Your task to perform on an android device: Show the shopping cart on newegg. Search for lenovo thinkpad on newegg, select the first entry, add it to the cart, then select checkout. Image 0: 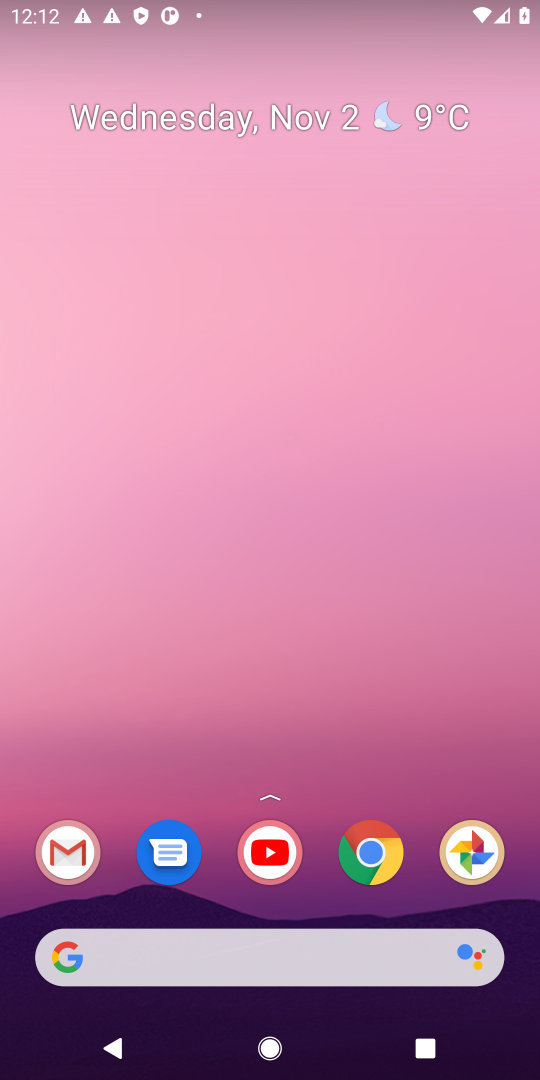
Step 0: drag from (249, 867) to (276, 129)
Your task to perform on an android device: Show the shopping cart on newegg. Search for lenovo thinkpad on newegg, select the first entry, add it to the cart, then select checkout. Image 1: 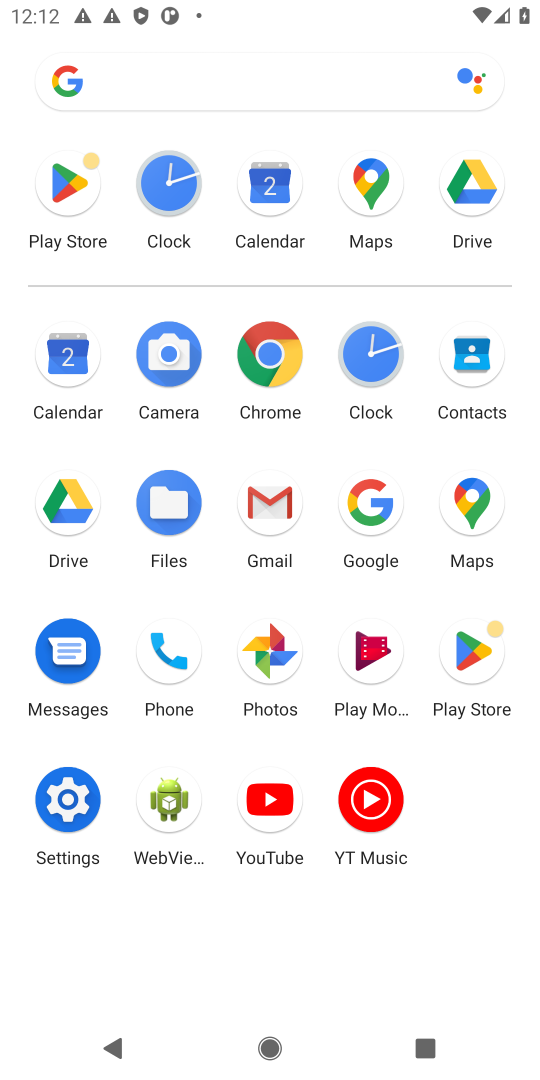
Step 1: click (369, 553)
Your task to perform on an android device: Show the shopping cart on newegg. Search for lenovo thinkpad on newegg, select the first entry, add it to the cart, then select checkout. Image 2: 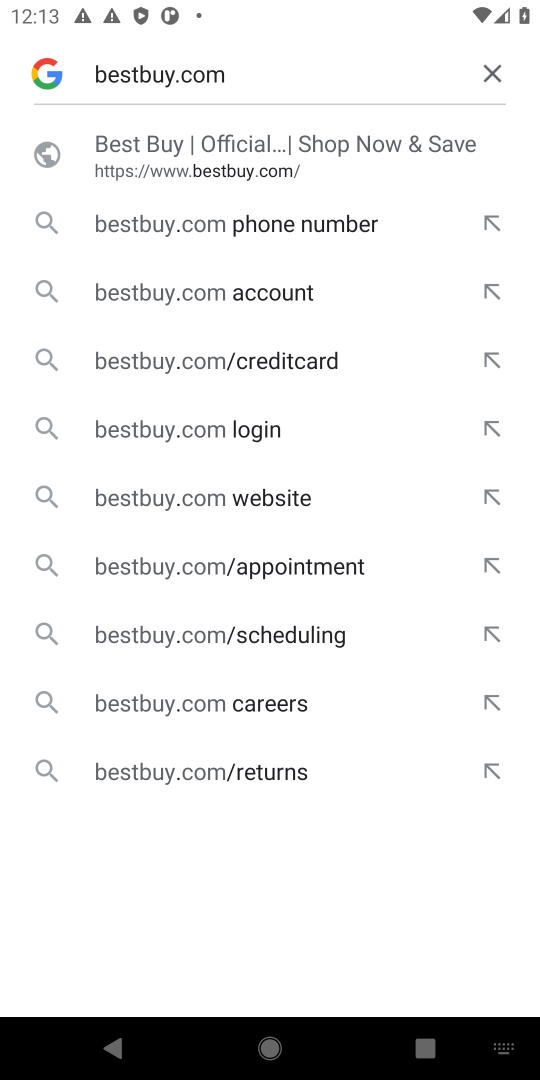
Step 2: click (498, 77)
Your task to perform on an android device: Show the shopping cart on newegg. Search for lenovo thinkpad on newegg, select the first entry, add it to the cart, then select checkout. Image 3: 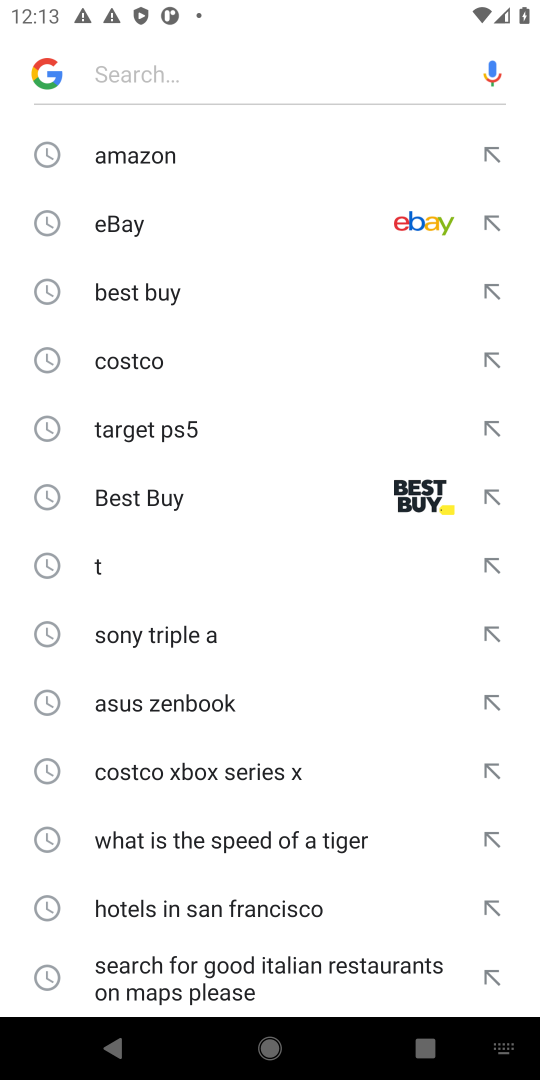
Step 3: type "newegg"
Your task to perform on an android device: Show the shopping cart on newegg. Search for lenovo thinkpad on newegg, select the first entry, add it to the cart, then select checkout. Image 4: 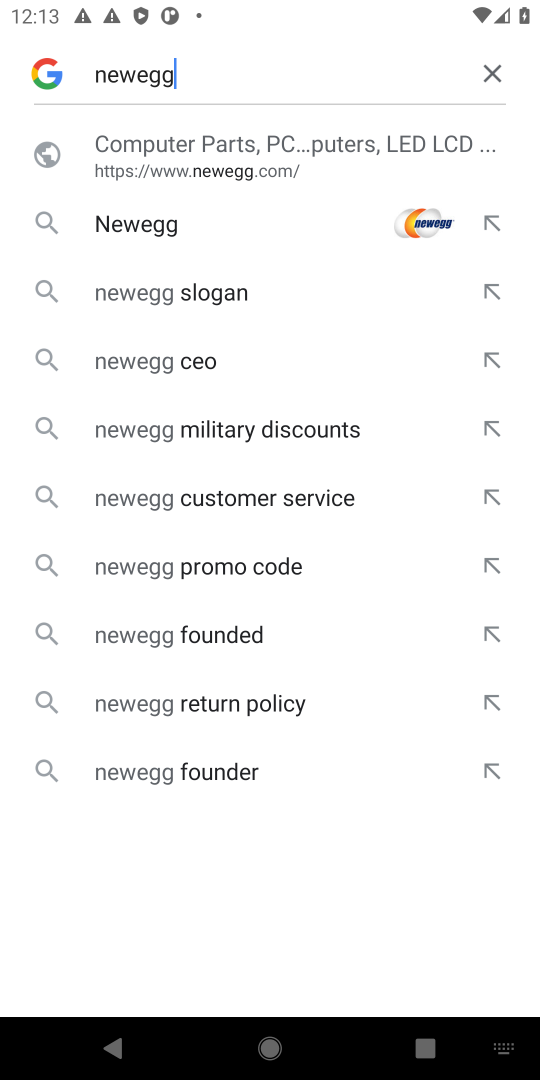
Step 4: click (243, 160)
Your task to perform on an android device: Show the shopping cart on newegg. Search for lenovo thinkpad on newegg, select the first entry, add it to the cart, then select checkout. Image 5: 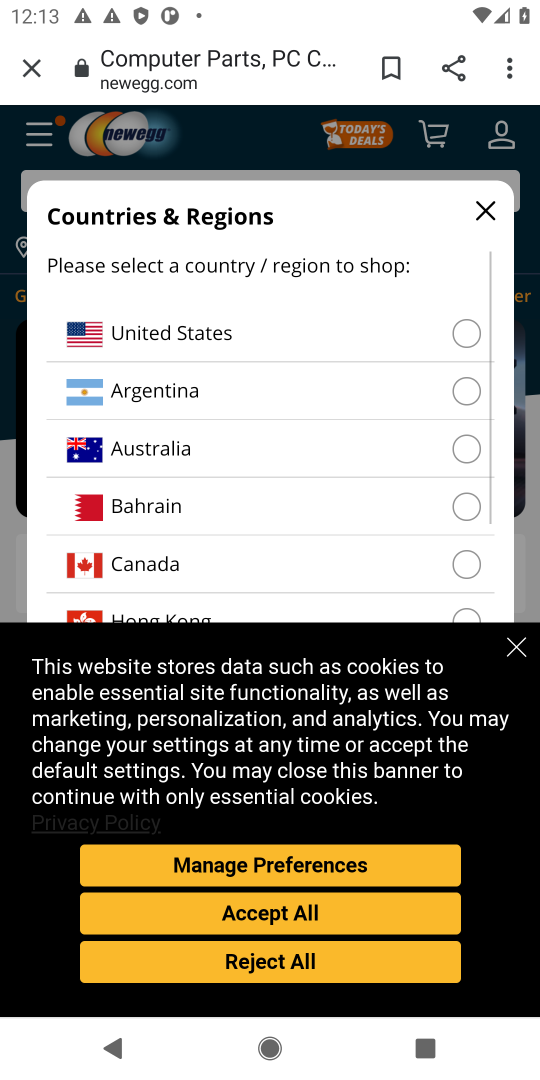
Step 5: click (483, 211)
Your task to perform on an android device: Show the shopping cart on newegg. Search for lenovo thinkpad on newegg, select the first entry, add it to the cart, then select checkout. Image 6: 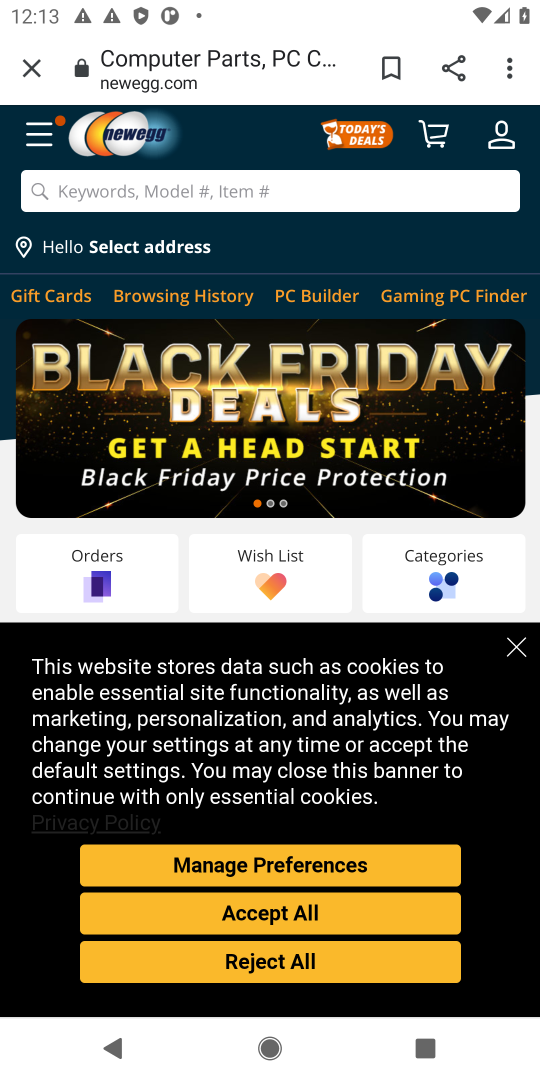
Step 6: click (411, 203)
Your task to perform on an android device: Show the shopping cart on newegg. Search for lenovo thinkpad on newegg, select the first entry, add it to the cart, then select checkout. Image 7: 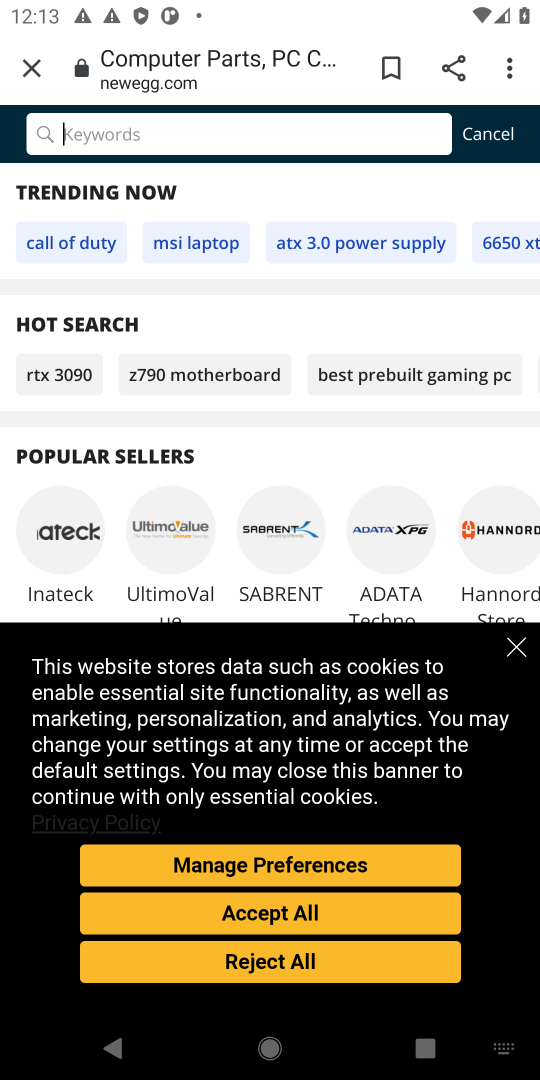
Step 7: type "lenovo thinkpad"
Your task to perform on an android device: Show the shopping cart on newegg. Search for lenovo thinkpad on newegg, select the first entry, add it to the cart, then select checkout. Image 8: 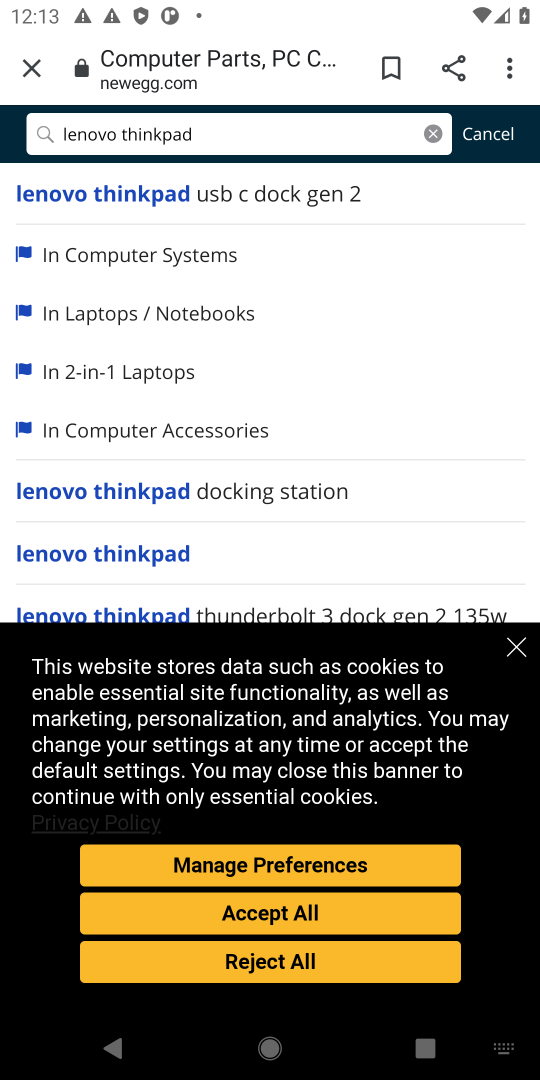
Step 8: click (100, 560)
Your task to perform on an android device: Show the shopping cart on newegg. Search for lenovo thinkpad on newegg, select the first entry, add it to the cart, then select checkout. Image 9: 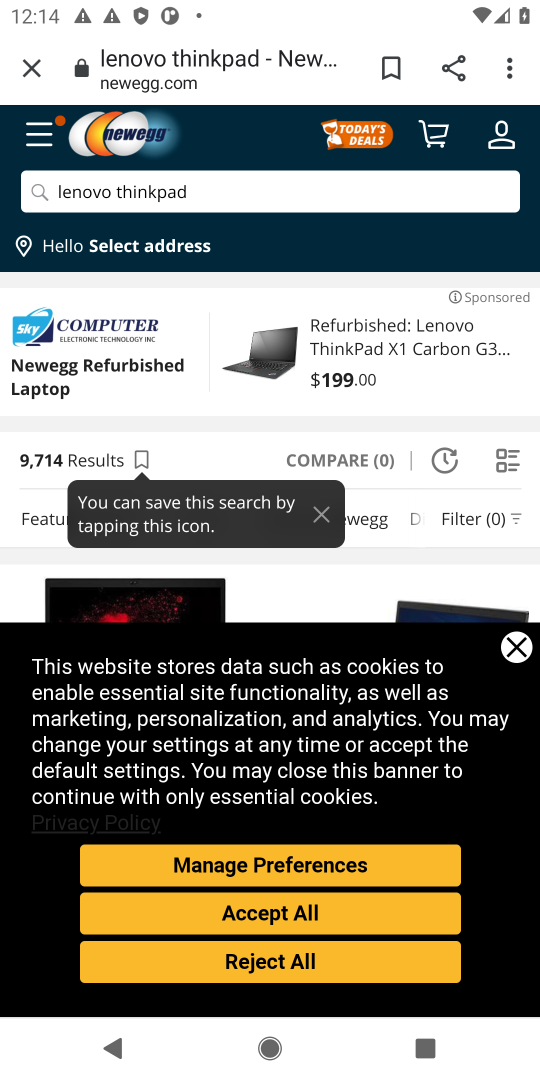
Step 9: click (301, 907)
Your task to perform on an android device: Show the shopping cart on newegg. Search for lenovo thinkpad on newegg, select the first entry, add it to the cart, then select checkout. Image 10: 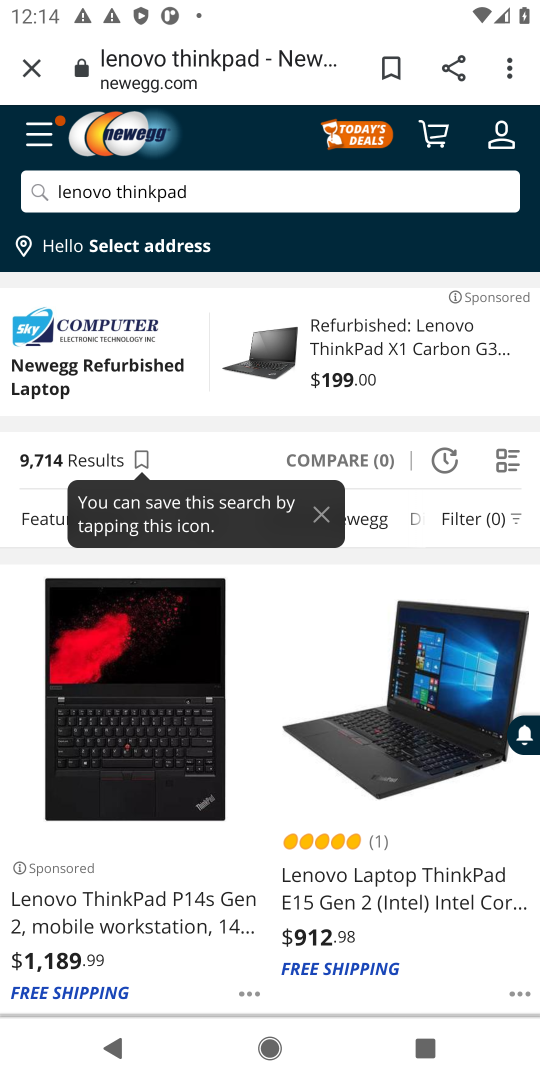
Step 10: click (157, 765)
Your task to perform on an android device: Show the shopping cart on newegg. Search for lenovo thinkpad on newegg, select the first entry, add it to the cart, then select checkout. Image 11: 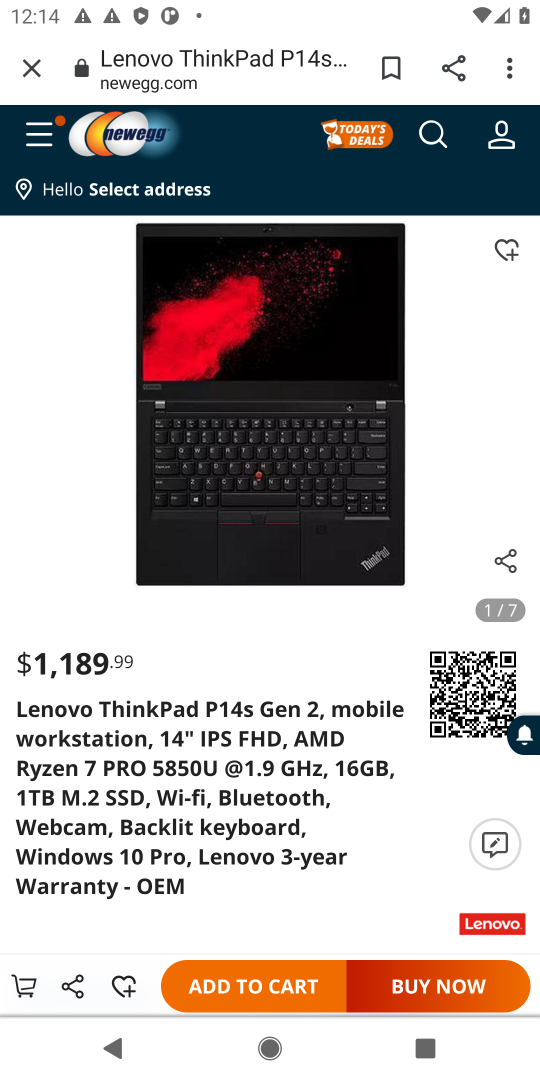
Step 11: click (272, 978)
Your task to perform on an android device: Show the shopping cart on newegg. Search for lenovo thinkpad on newegg, select the first entry, add it to the cart, then select checkout. Image 12: 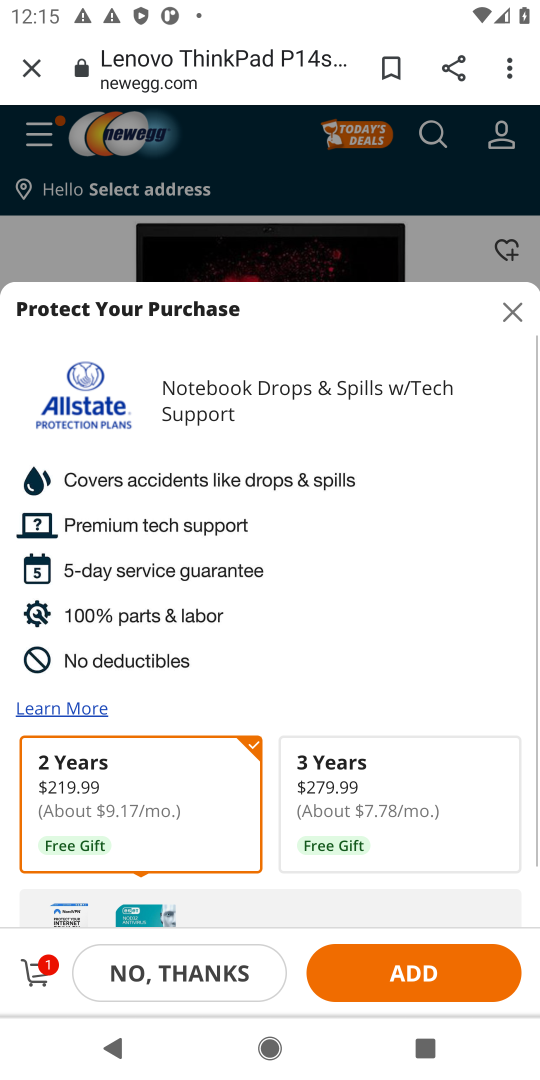
Step 12: click (388, 974)
Your task to perform on an android device: Show the shopping cart on newegg. Search for lenovo thinkpad on newegg, select the first entry, add it to the cart, then select checkout. Image 13: 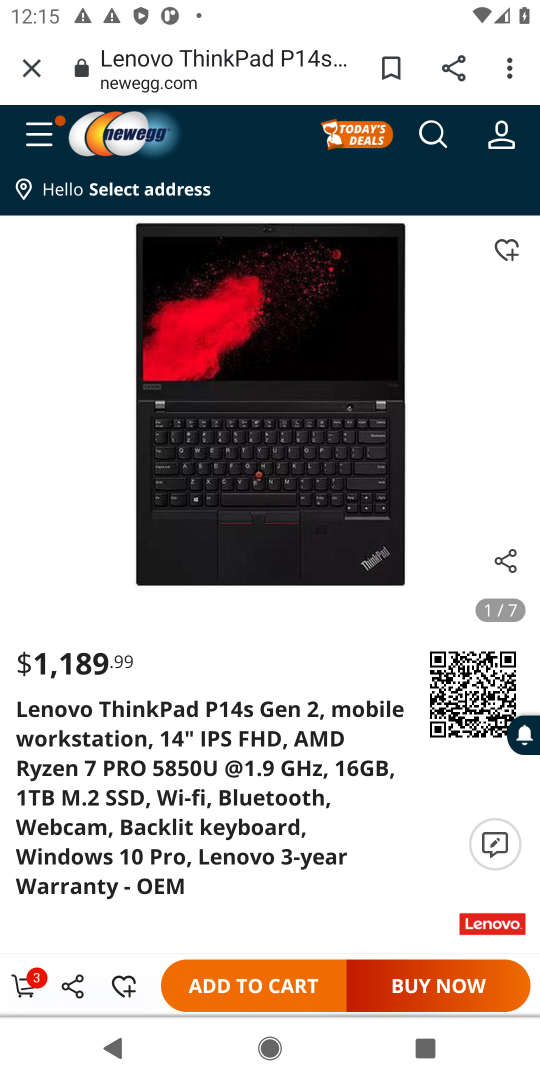
Step 13: click (510, 147)
Your task to perform on an android device: Show the shopping cart on newegg. Search for lenovo thinkpad on newegg, select the first entry, add it to the cart, then select checkout. Image 14: 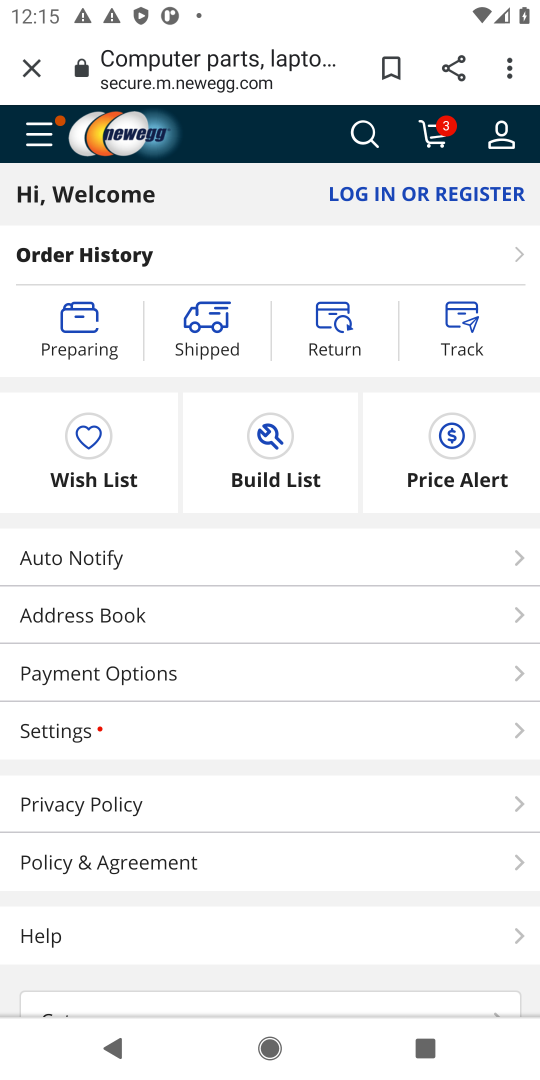
Step 14: click (440, 146)
Your task to perform on an android device: Show the shopping cart on newegg. Search for lenovo thinkpad on newegg, select the first entry, add it to the cart, then select checkout. Image 15: 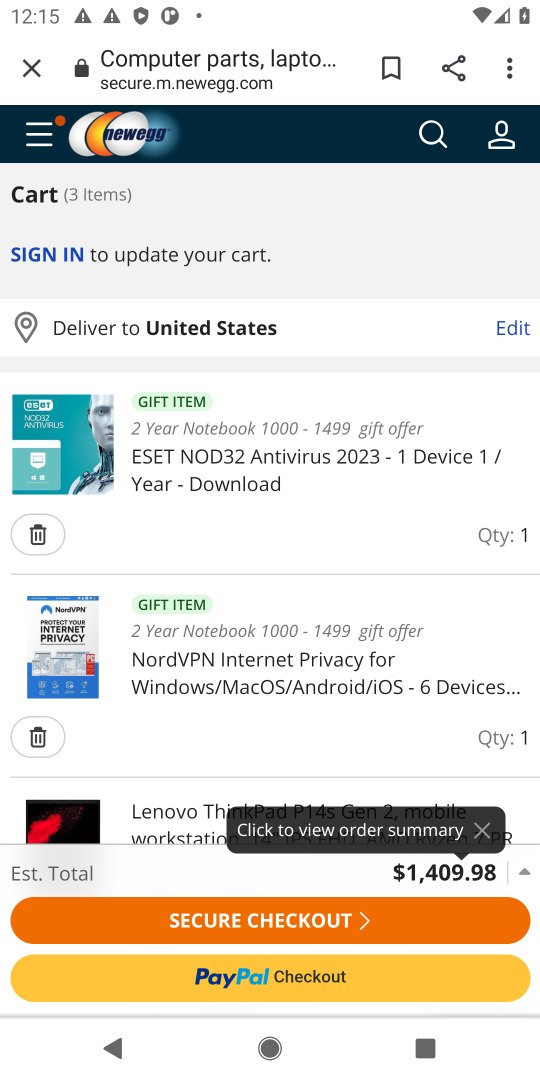
Step 15: click (315, 922)
Your task to perform on an android device: Show the shopping cart on newegg. Search for lenovo thinkpad on newegg, select the first entry, add it to the cart, then select checkout. Image 16: 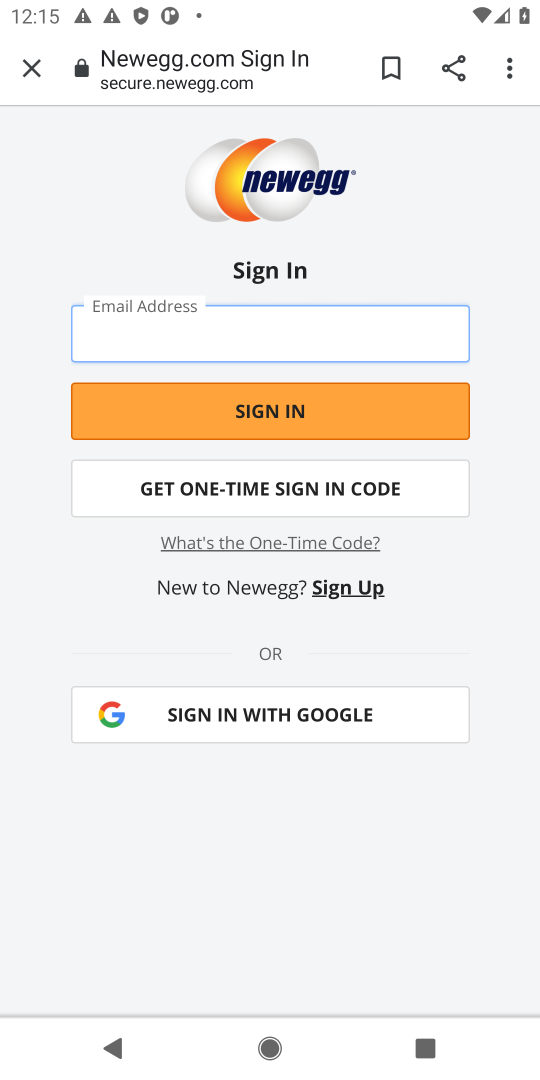
Step 16: task complete